Your task to perform on an android device: Open calendar and show me the second week of next month Image 0: 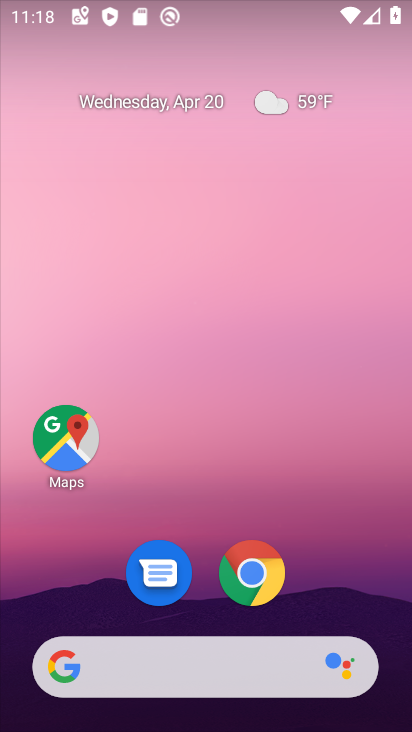
Step 0: drag from (351, 553) to (261, 0)
Your task to perform on an android device: Open calendar and show me the second week of next month Image 1: 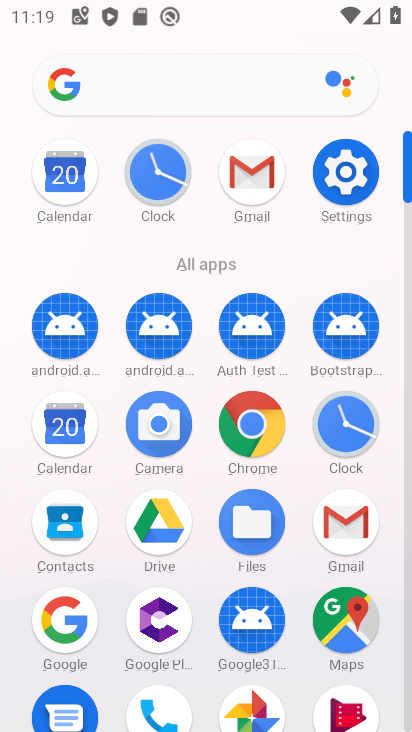
Step 1: click (63, 437)
Your task to perform on an android device: Open calendar and show me the second week of next month Image 2: 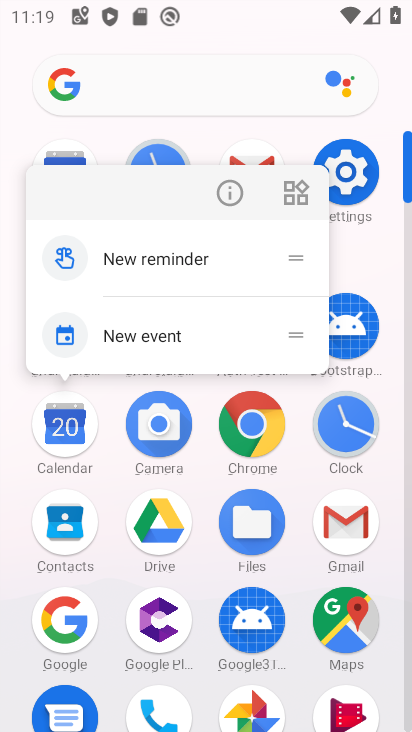
Step 2: click (63, 429)
Your task to perform on an android device: Open calendar and show me the second week of next month Image 3: 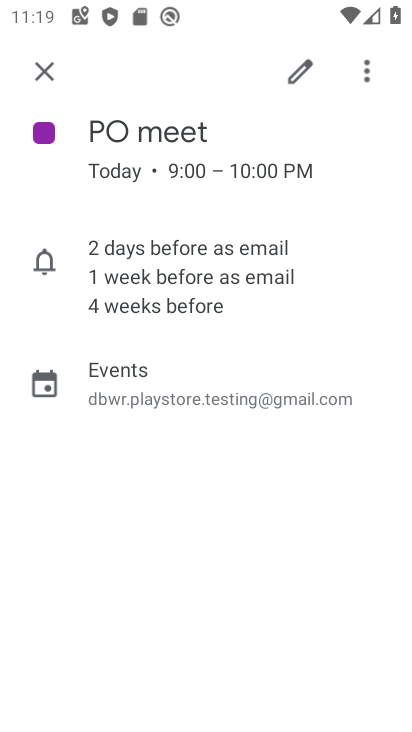
Step 3: click (51, 81)
Your task to perform on an android device: Open calendar and show me the second week of next month Image 4: 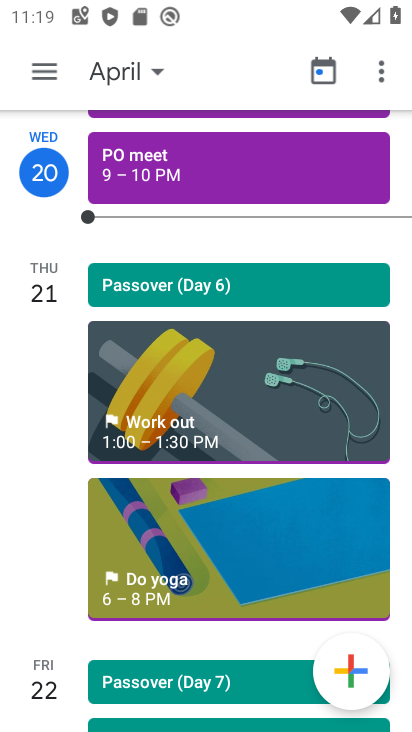
Step 4: click (156, 73)
Your task to perform on an android device: Open calendar and show me the second week of next month Image 5: 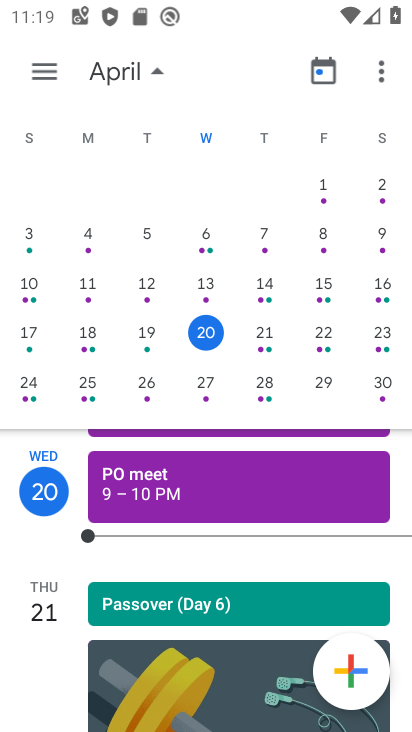
Step 5: drag from (331, 294) to (0, 133)
Your task to perform on an android device: Open calendar and show me the second week of next month Image 6: 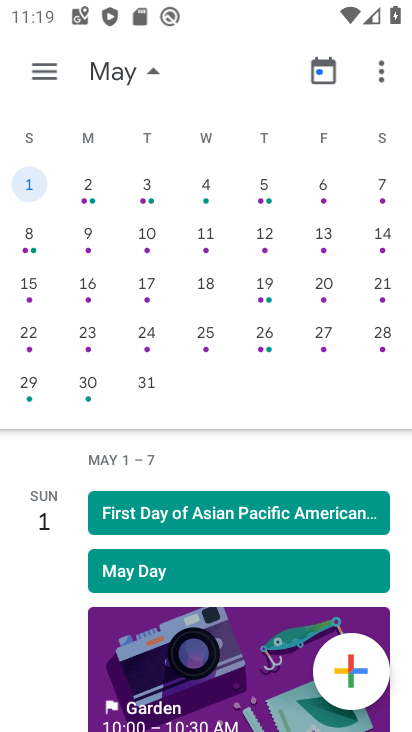
Step 6: click (37, 77)
Your task to perform on an android device: Open calendar and show me the second week of next month Image 7: 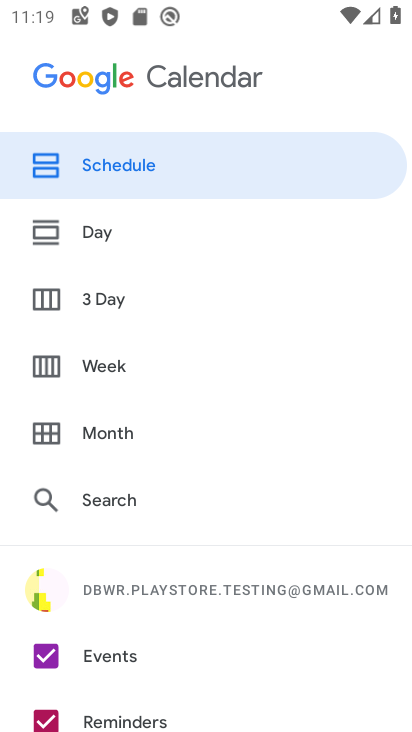
Step 7: click (56, 366)
Your task to perform on an android device: Open calendar and show me the second week of next month Image 8: 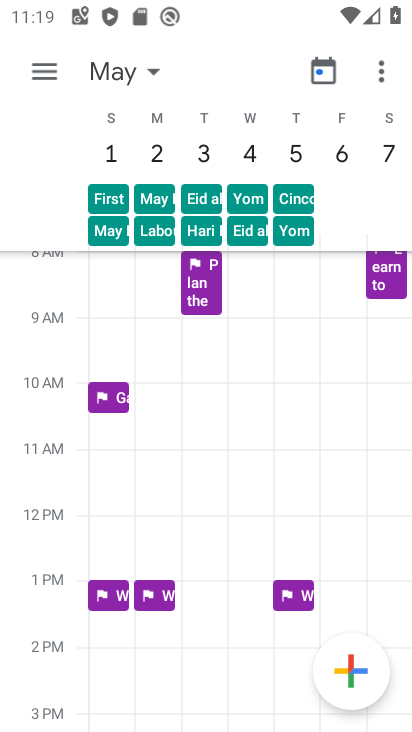
Step 8: task complete